Your task to perform on an android device: Set the phone to "Do not disturb". Image 0: 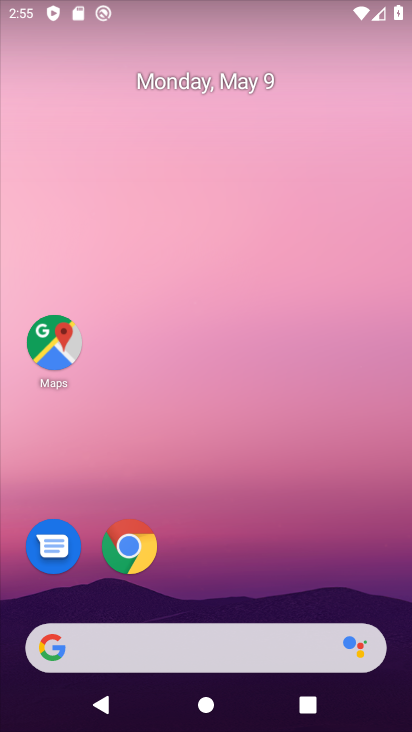
Step 0: drag from (193, 524) to (209, 127)
Your task to perform on an android device: Set the phone to "Do not disturb". Image 1: 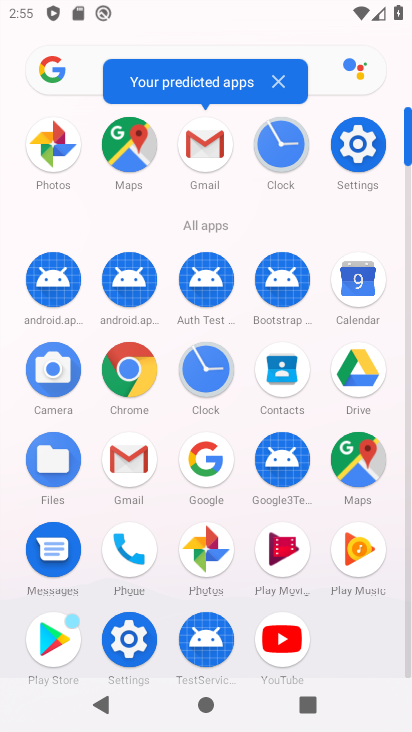
Step 1: click (357, 149)
Your task to perform on an android device: Set the phone to "Do not disturb". Image 2: 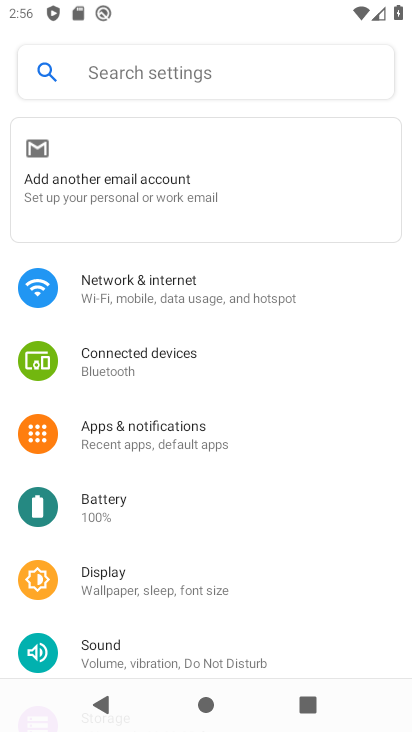
Step 2: click (157, 667)
Your task to perform on an android device: Set the phone to "Do not disturb". Image 3: 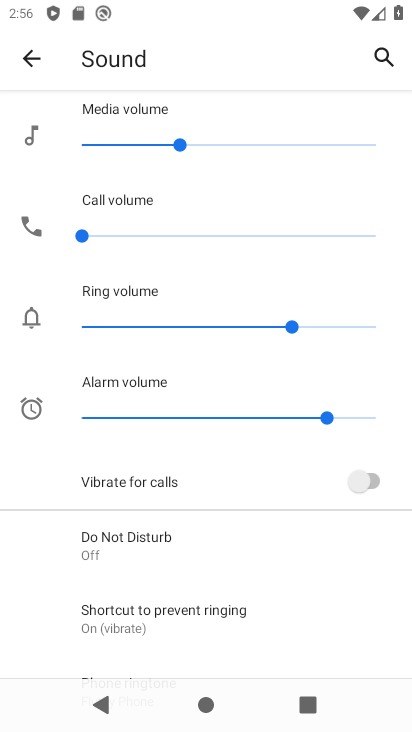
Step 3: click (173, 536)
Your task to perform on an android device: Set the phone to "Do not disturb". Image 4: 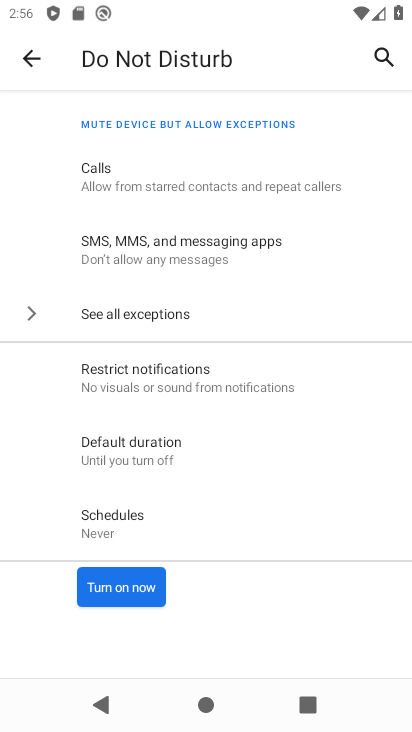
Step 4: click (134, 575)
Your task to perform on an android device: Set the phone to "Do not disturb". Image 5: 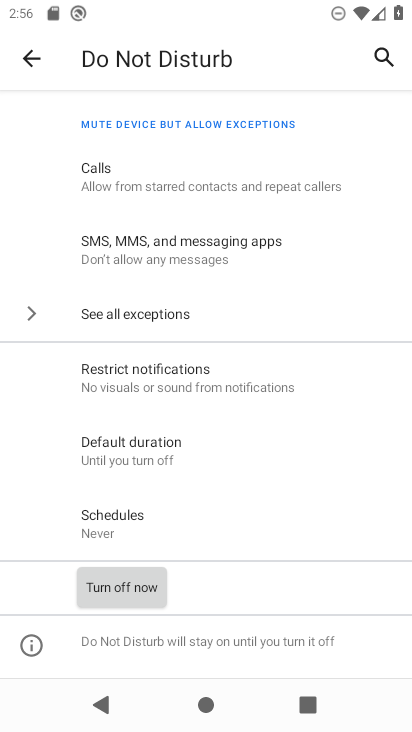
Step 5: task complete